Your task to perform on an android device: turn on sleep mode Image 0: 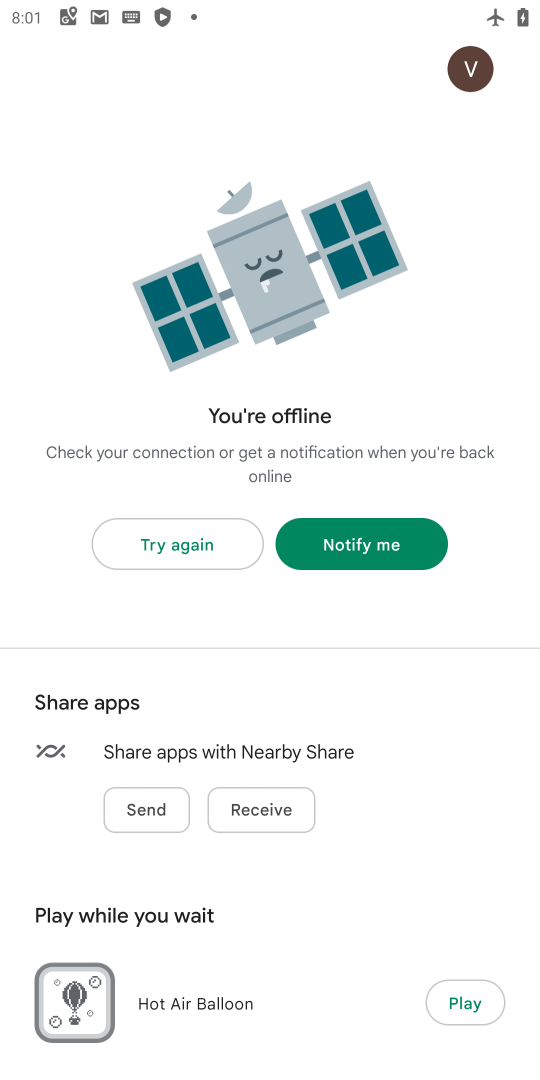
Step 0: press home button
Your task to perform on an android device: turn on sleep mode Image 1: 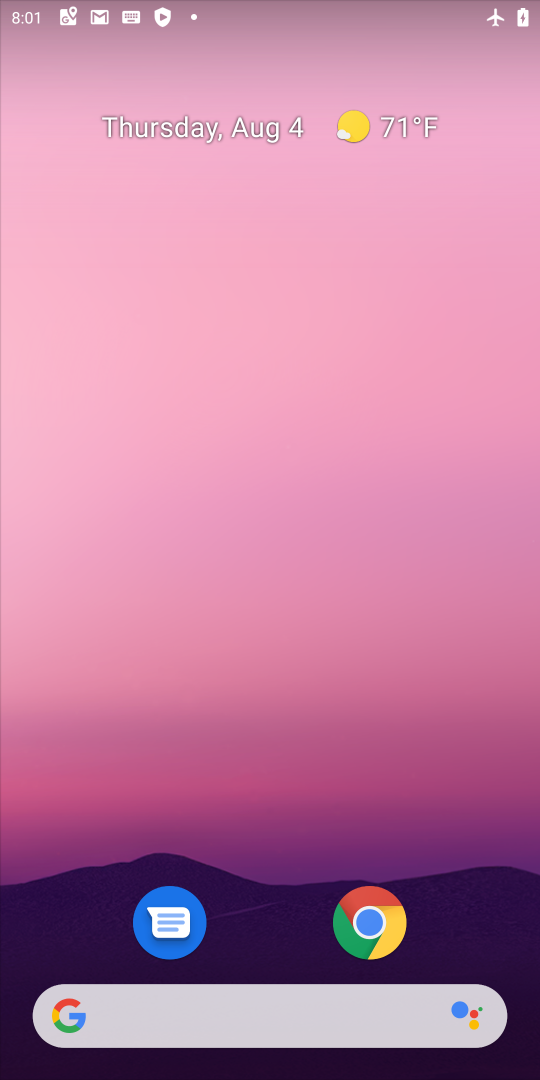
Step 1: drag from (168, 7) to (507, 714)
Your task to perform on an android device: turn on sleep mode Image 2: 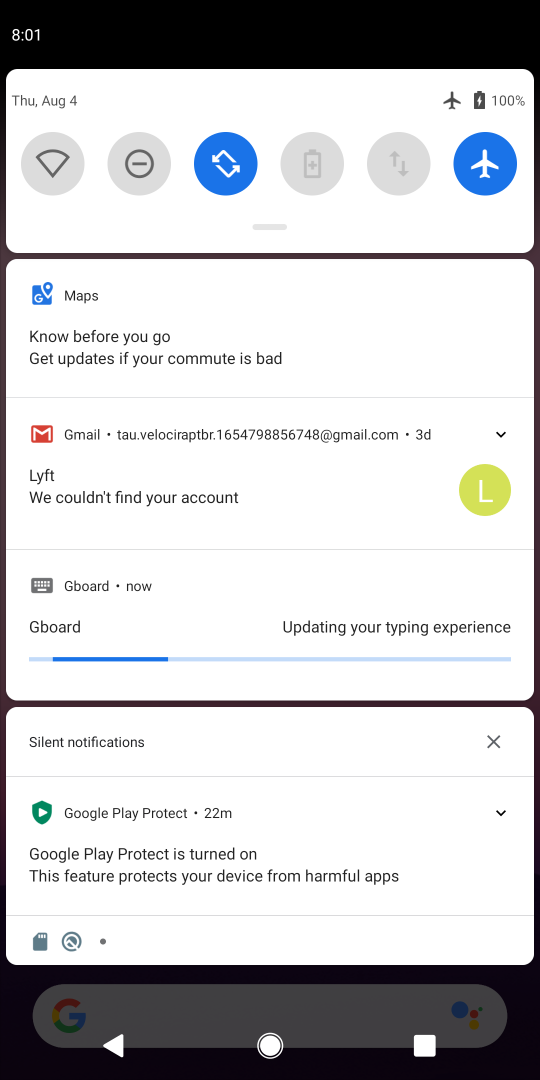
Step 2: drag from (259, 200) to (538, 796)
Your task to perform on an android device: turn on sleep mode Image 3: 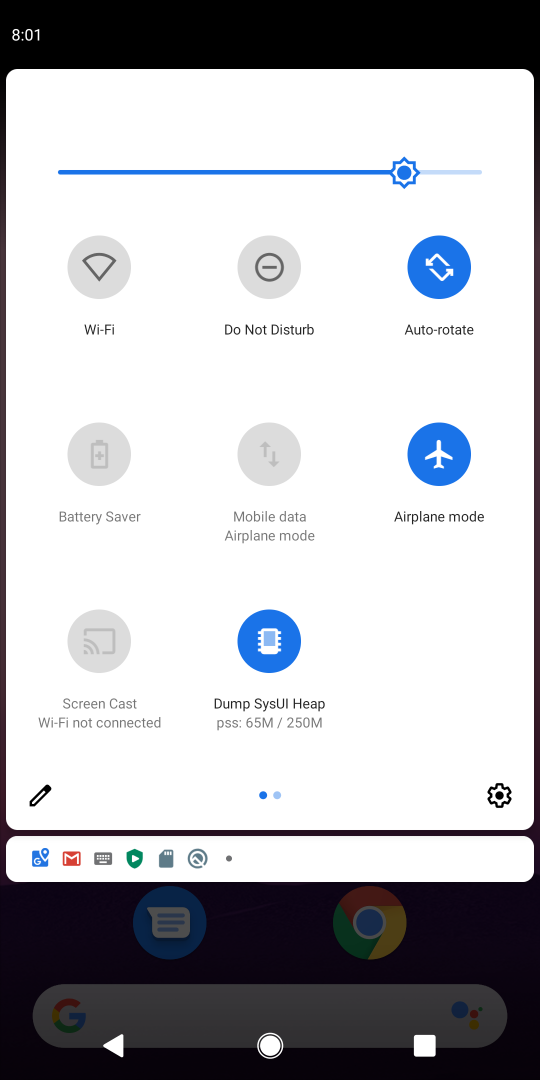
Step 3: click (49, 790)
Your task to perform on an android device: turn on sleep mode Image 4: 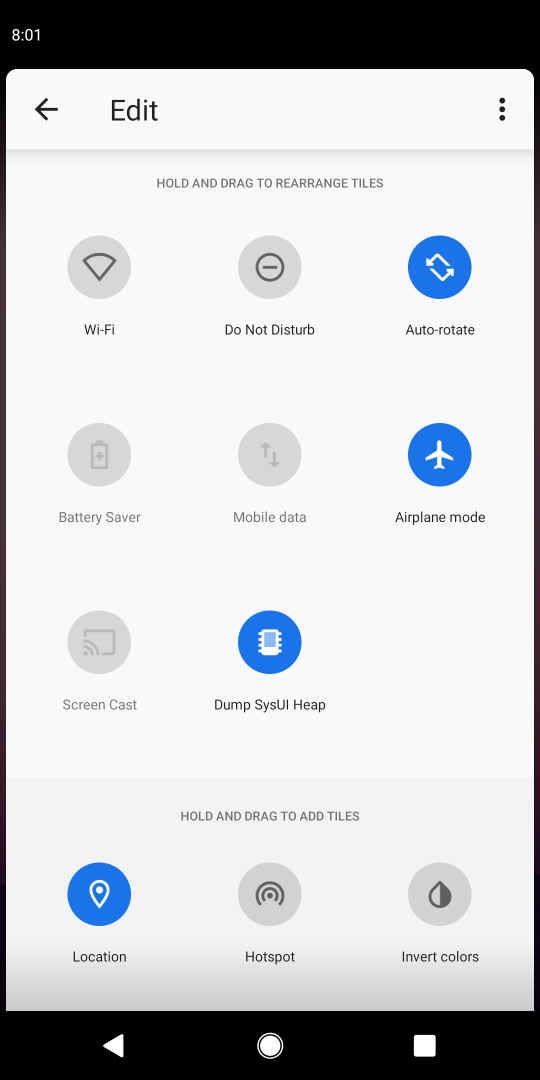
Step 4: task complete